Your task to perform on an android device: Open ESPN.com Image 0: 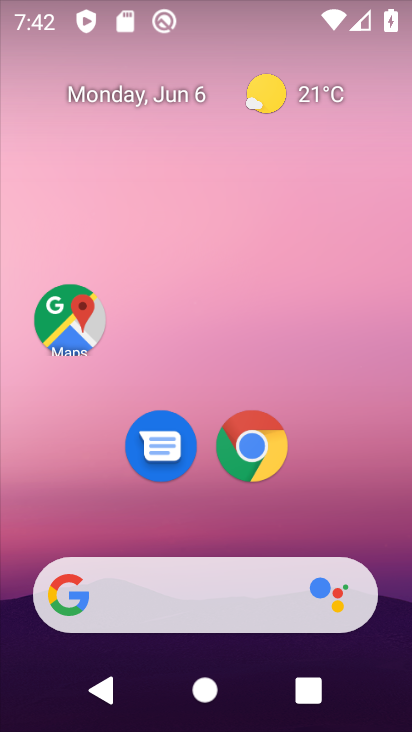
Step 0: click (239, 459)
Your task to perform on an android device: Open ESPN.com Image 1: 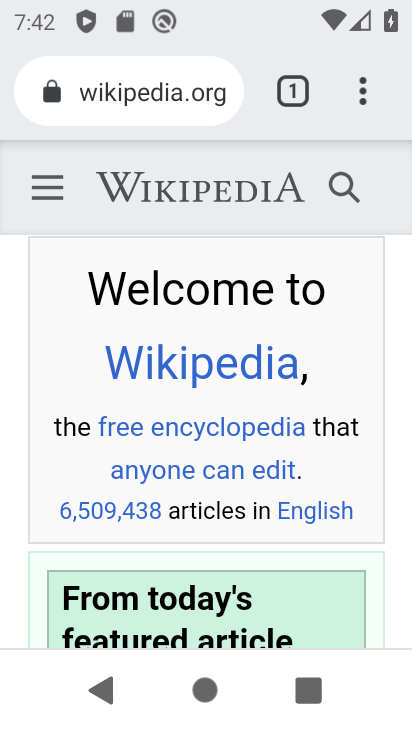
Step 1: click (293, 87)
Your task to perform on an android device: Open ESPN.com Image 2: 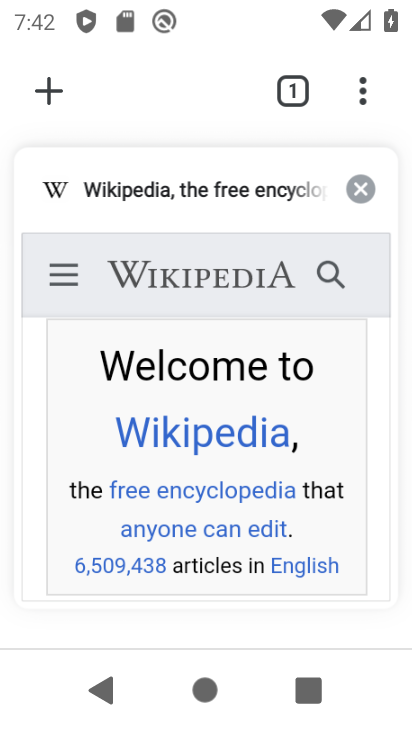
Step 2: click (53, 87)
Your task to perform on an android device: Open ESPN.com Image 3: 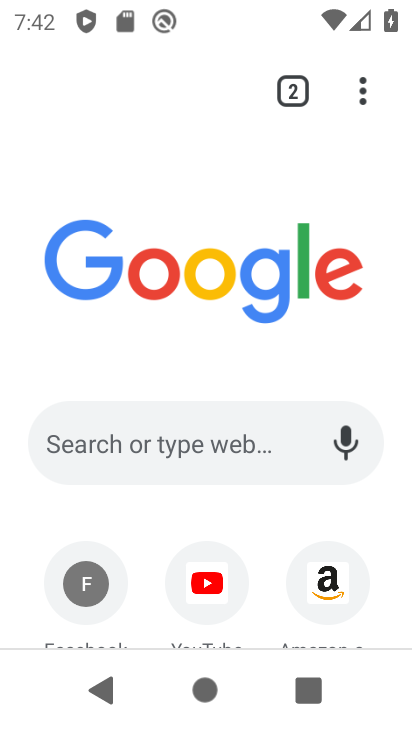
Step 3: drag from (233, 499) to (253, 254)
Your task to perform on an android device: Open ESPN.com Image 4: 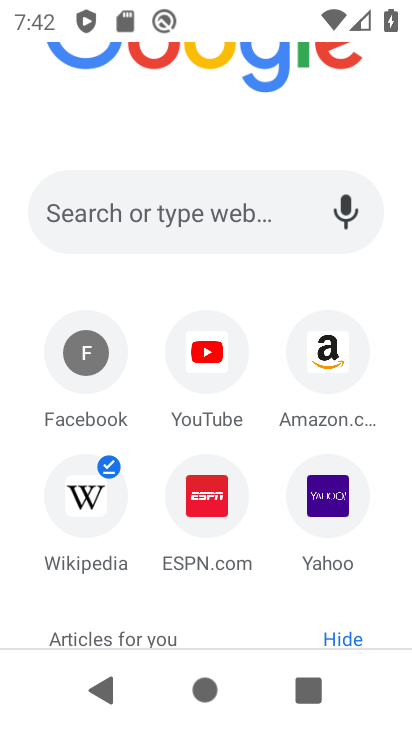
Step 4: click (205, 512)
Your task to perform on an android device: Open ESPN.com Image 5: 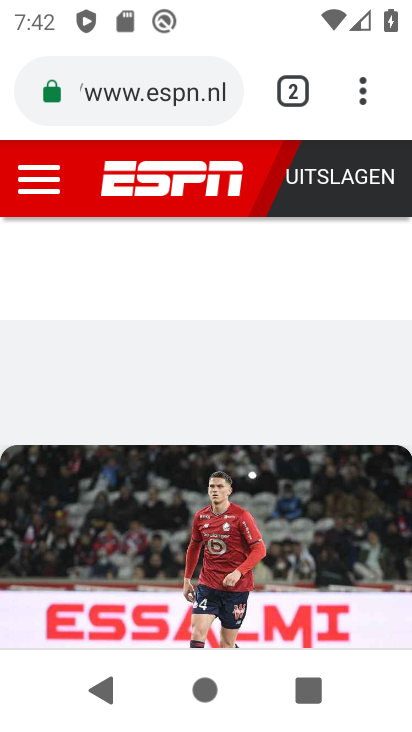
Step 5: task complete